Your task to perform on an android device: turn off notifications settings in the gmail app Image 0: 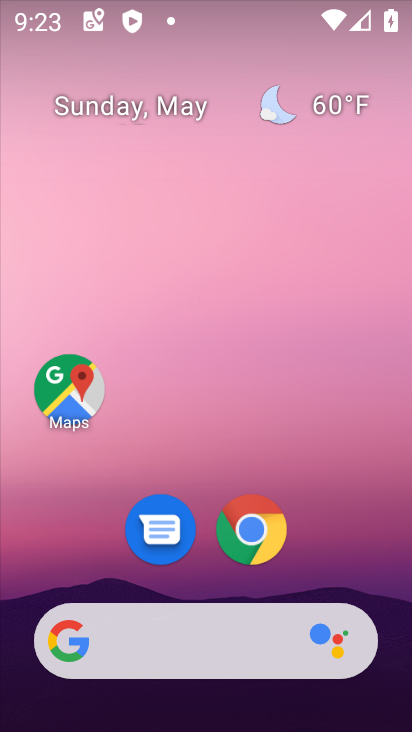
Step 0: drag from (384, 579) to (382, 181)
Your task to perform on an android device: turn off notifications settings in the gmail app Image 1: 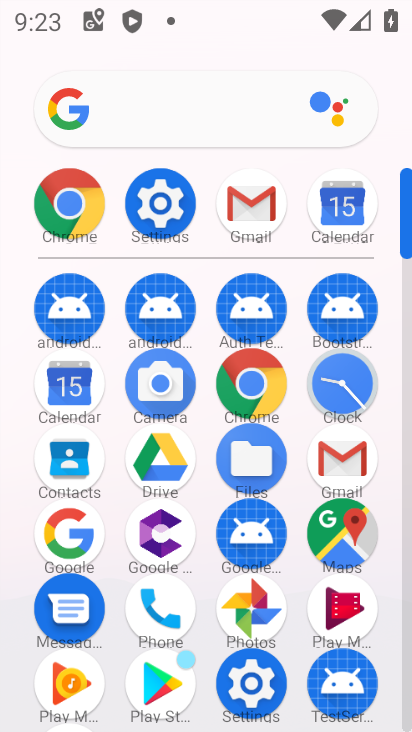
Step 1: click (359, 458)
Your task to perform on an android device: turn off notifications settings in the gmail app Image 2: 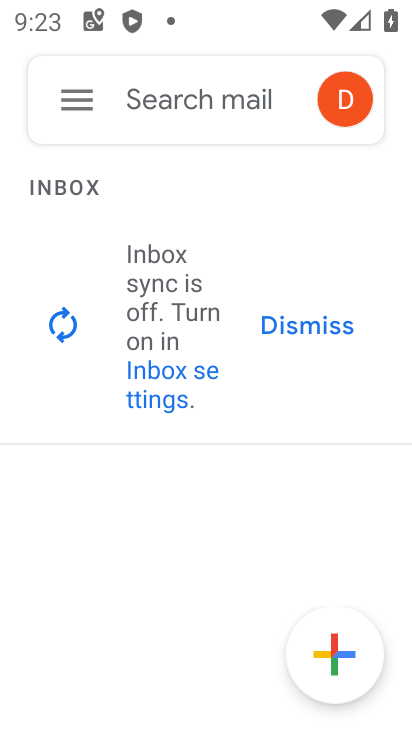
Step 2: click (75, 105)
Your task to perform on an android device: turn off notifications settings in the gmail app Image 3: 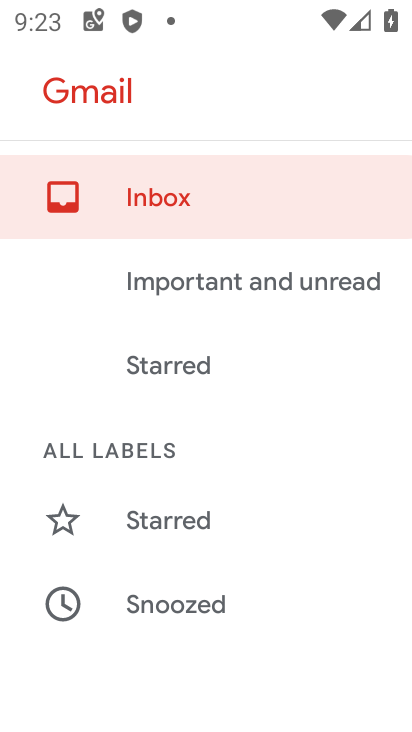
Step 3: drag from (332, 634) to (329, 443)
Your task to perform on an android device: turn off notifications settings in the gmail app Image 4: 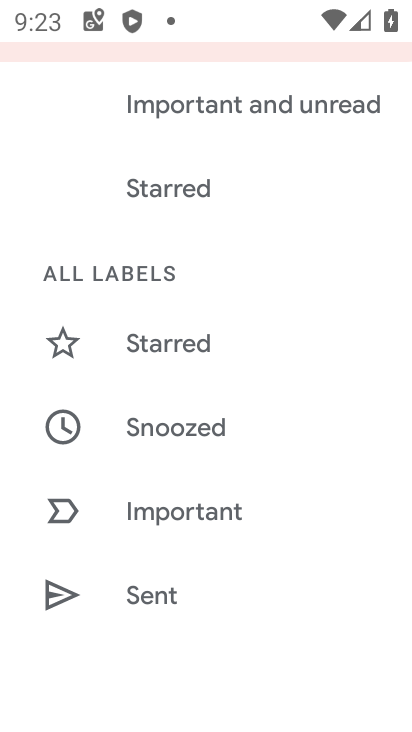
Step 4: drag from (322, 601) to (317, 464)
Your task to perform on an android device: turn off notifications settings in the gmail app Image 5: 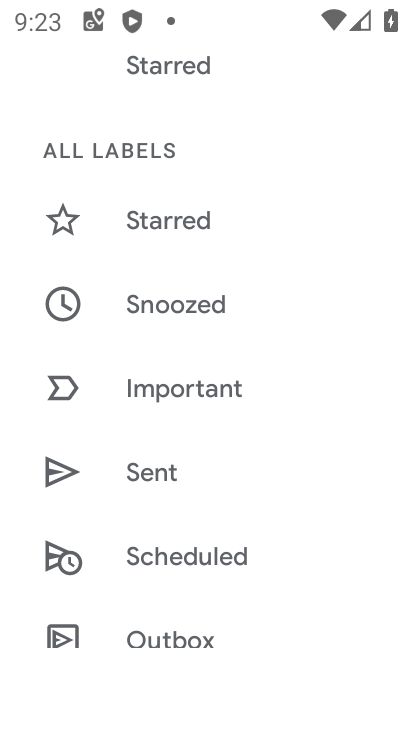
Step 5: drag from (330, 619) to (330, 493)
Your task to perform on an android device: turn off notifications settings in the gmail app Image 6: 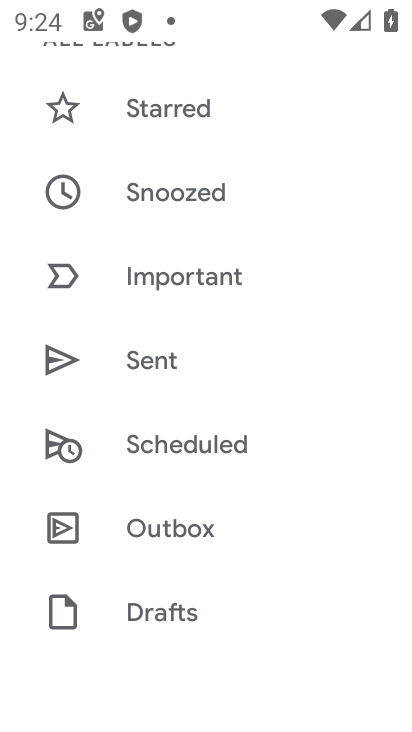
Step 6: drag from (328, 590) to (331, 481)
Your task to perform on an android device: turn off notifications settings in the gmail app Image 7: 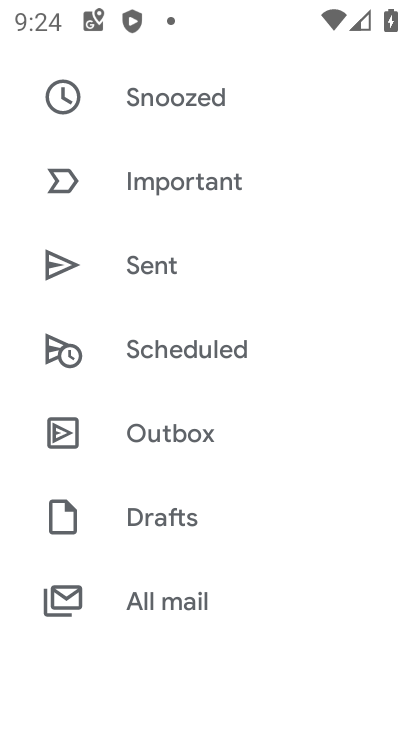
Step 7: drag from (338, 633) to (326, 476)
Your task to perform on an android device: turn off notifications settings in the gmail app Image 8: 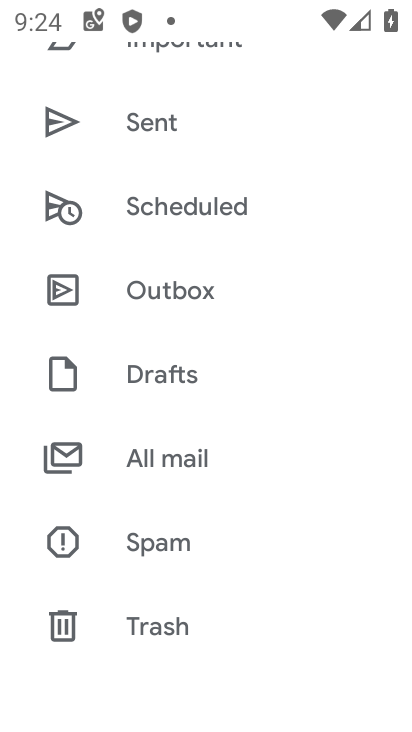
Step 8: drag from (302, 588) to (306, 434)
Your task to perform on an android device: turn off notifications settings in the gmail app Image 9: 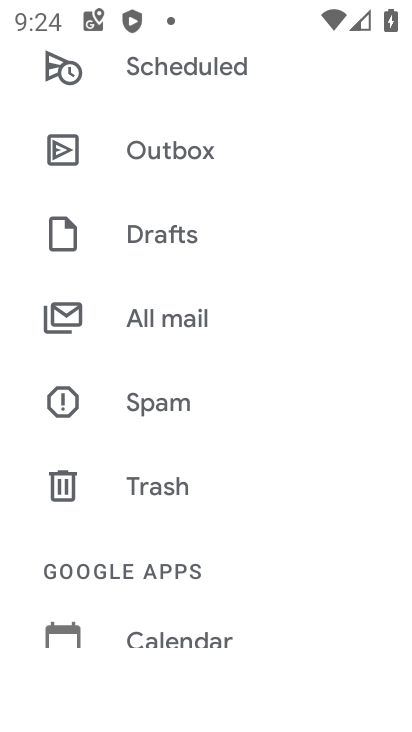
Step 9: drag from (322, 624) to (328, 418)
Your task to perform on an android device: turn off notifications settings in the gmail app Image 10: 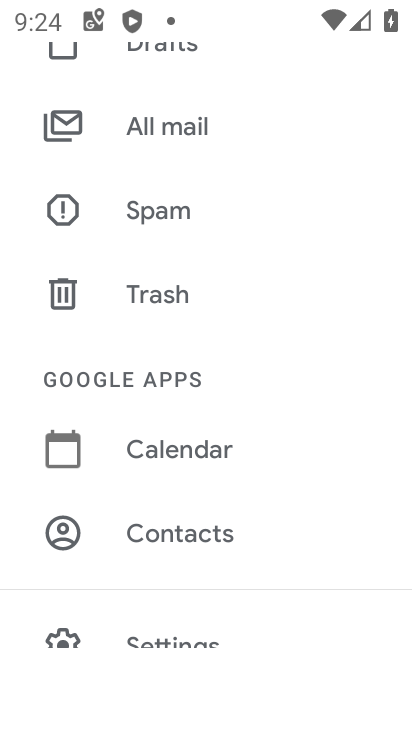
Step 10: drag from (318, 559) to (334, 430)
Your task to perform on an android device: turn off notifications settings in the gmail app Image 11: 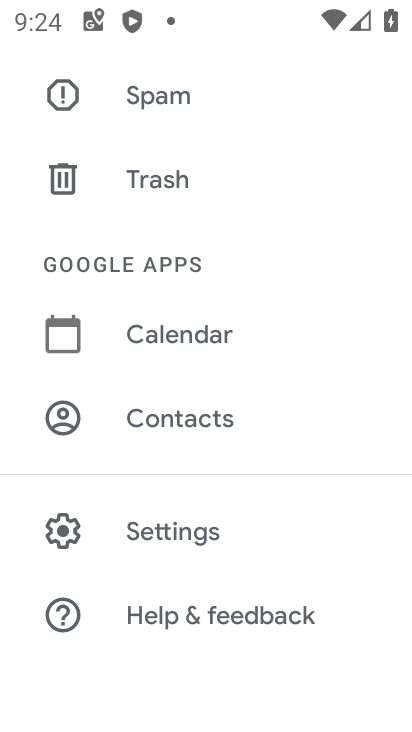
Step 11: click (197, 542)
Your task to perform on an android device: turn off notifications settings in the gmail app Image 12: 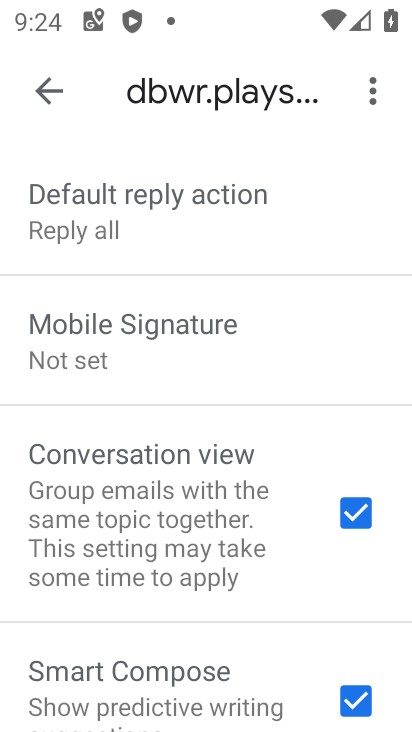
Step 12: drag from (286, 605) to (284, 413)
Your task to perform on an android device: turn off notifications settings in the gmail app Image 13: 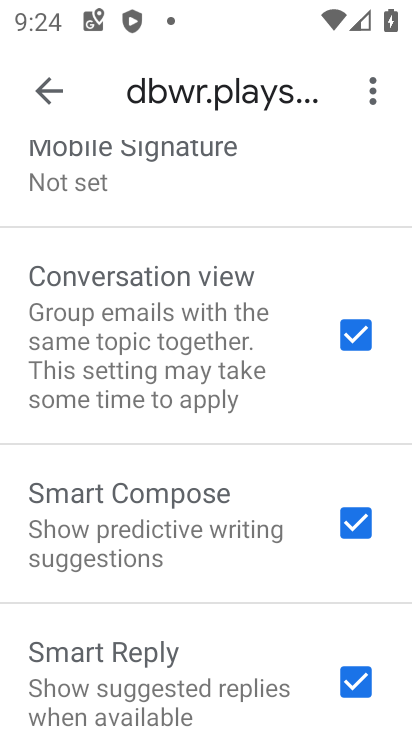
Step 13: drag from (249, 660) to (241, 463)
Your task to perform on an android device: turn off notifications settings in the gmail app Image 14: 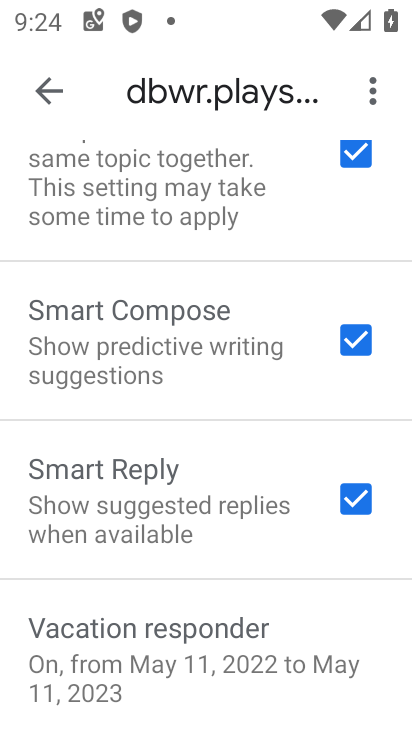
Step 14: drag from (284, 591) to (274, 412)
Your task to perform on an android device: turn off notifications settings in the gmail app Image 15: 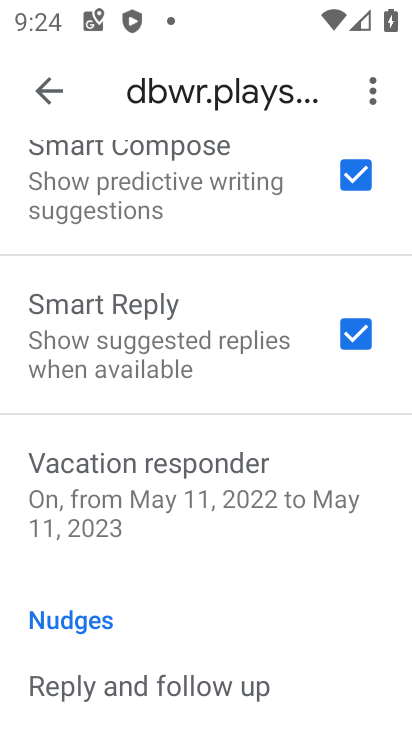
Step 15: drag from (269, 629) to (267, 428)
Your task to perform on an android device: turn off notifications settings in the gmail app Image 16: 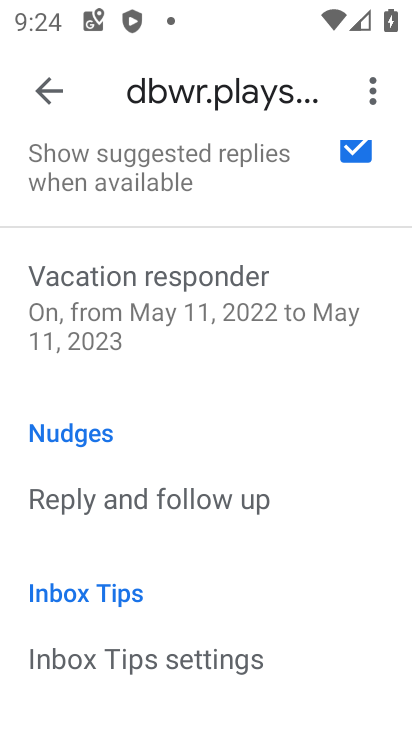
Step 16: drag from (292, 680) to (301, 560)
Your task to perform on an android device: turn off notifications settings in the gmail app Image 17: 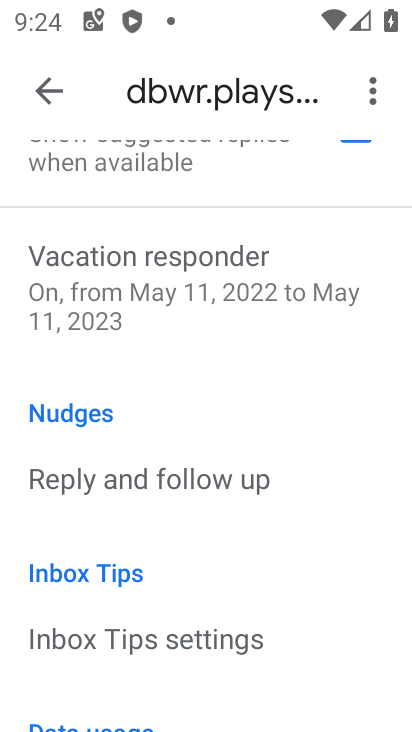
Step 17: click (327, 658)
Your task to perform on an android device: turn off notifications settings in the gmail app Image 18: 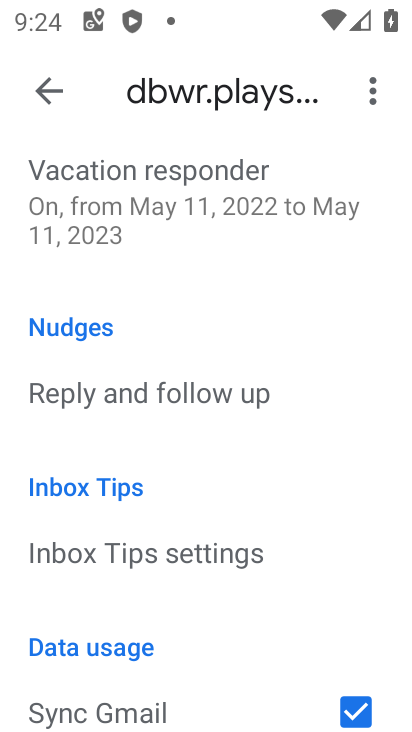
Step 18: click (318, 588)
Your task to perform on an android device: turn off notifications settings in the gmail app Image 19: 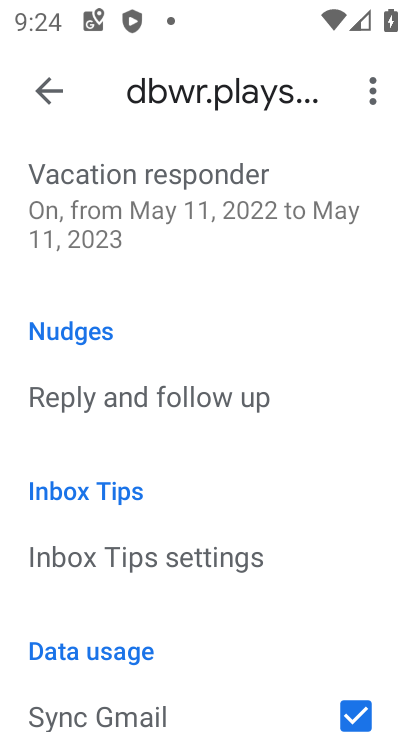
Step 19: drag from (374, 170) to (371, 533)
Your task to perform on an android device: turn off notifications settings in the gmail app Image 20: 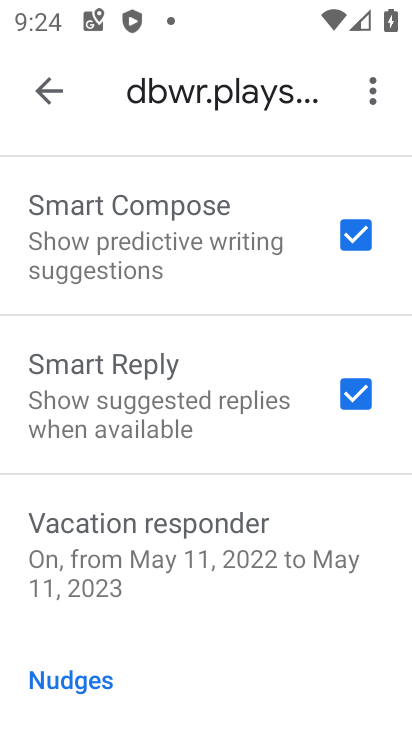
Step 20: drag from (387, 181) to (387, 494)
Your task to perform on an android device: turn off notifications settings in the gmail app Image 21: 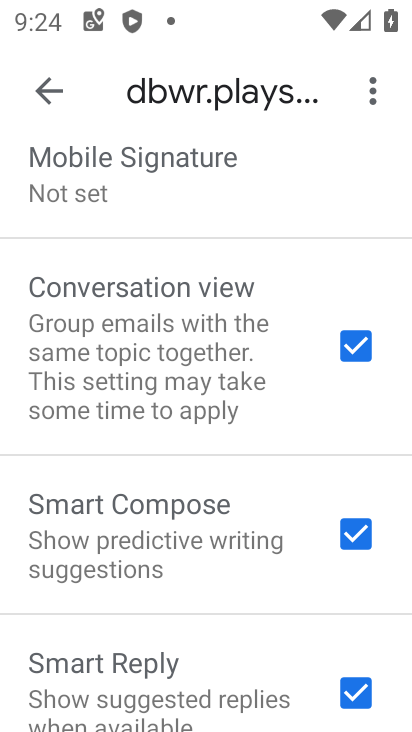
Step 21: drag from (278, 195) to (279, 441)
Your task to perform on an android device: turn off notifications settings in the gmail app Image 22: 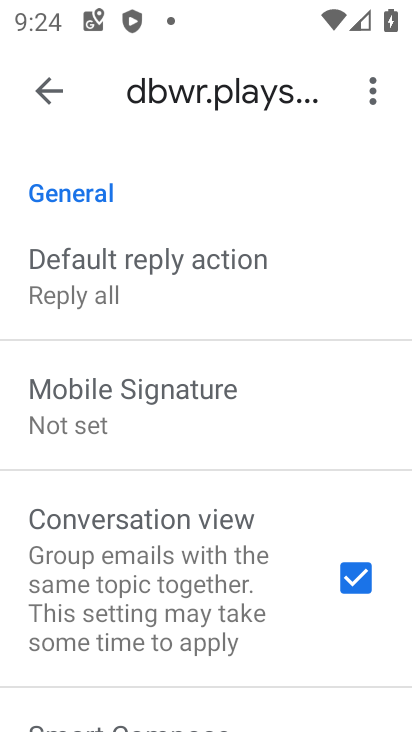
Step 22: drag from (270, 191) to (271, 407)
Your task to perform on an android device: turn off notifications settings in the gmail app Image 23: 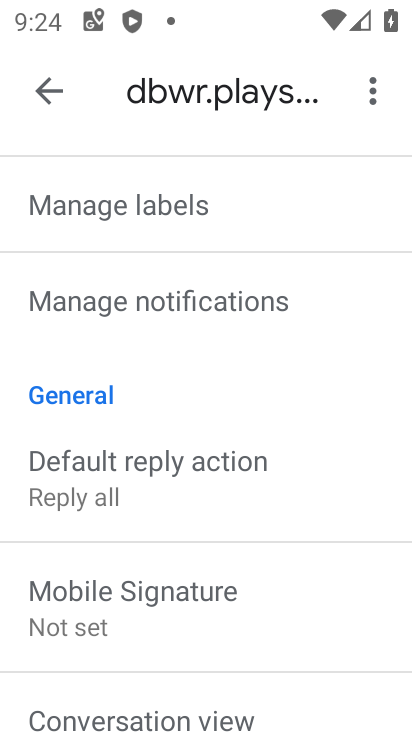
Step 23: click (237, 316)
Your task to perform on an android device: turn off notifications settings in the gmail app Image 24: 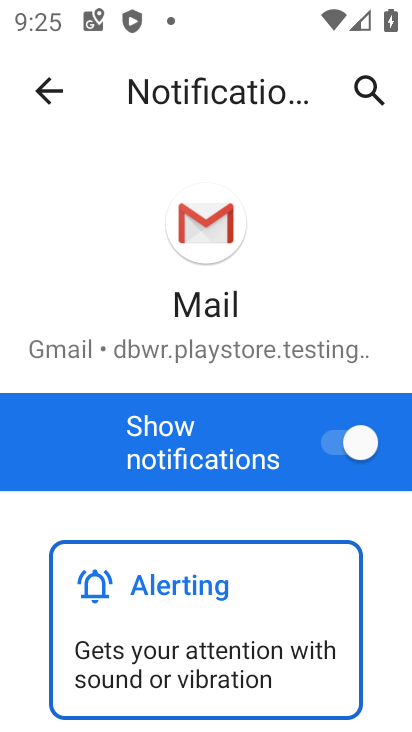
Step 24: click (343, 466)
Your task to perform on an android device: turn off notifications settings in the gmail app Image 25: 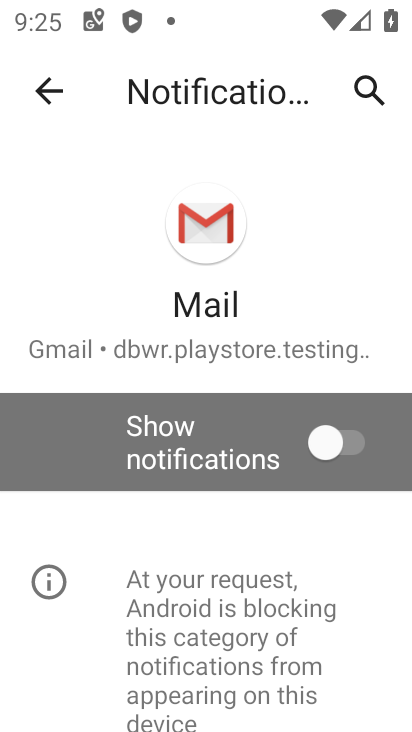
Step 25: task complete